Your task to perform on an android device: uninstall "Firefox Browser" Image 0: 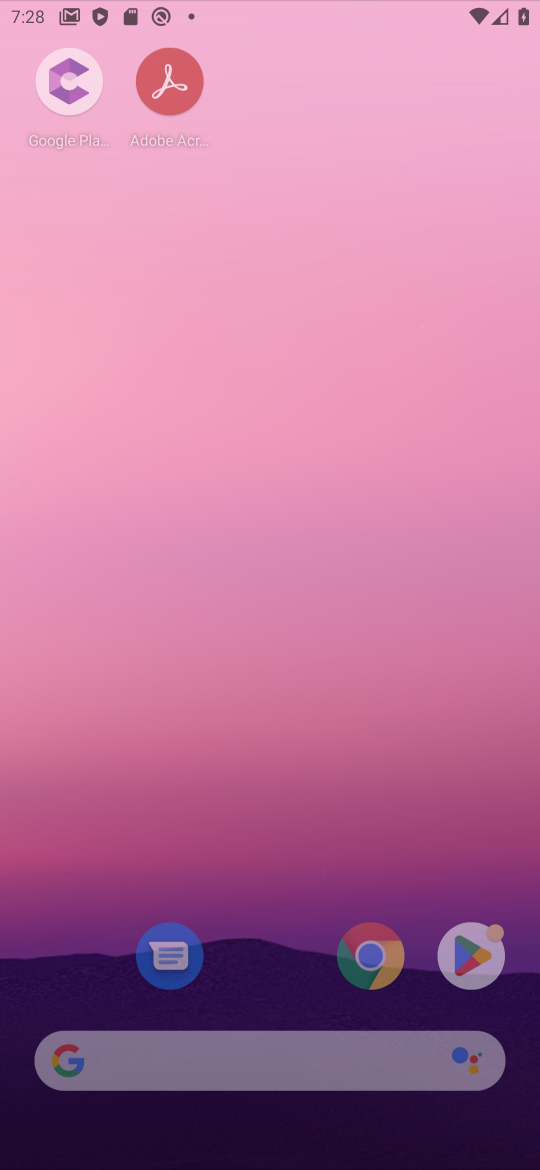
Step 0: press home button
Your task to perform on an android device: uninstall "Firefox Browser" Image 1: 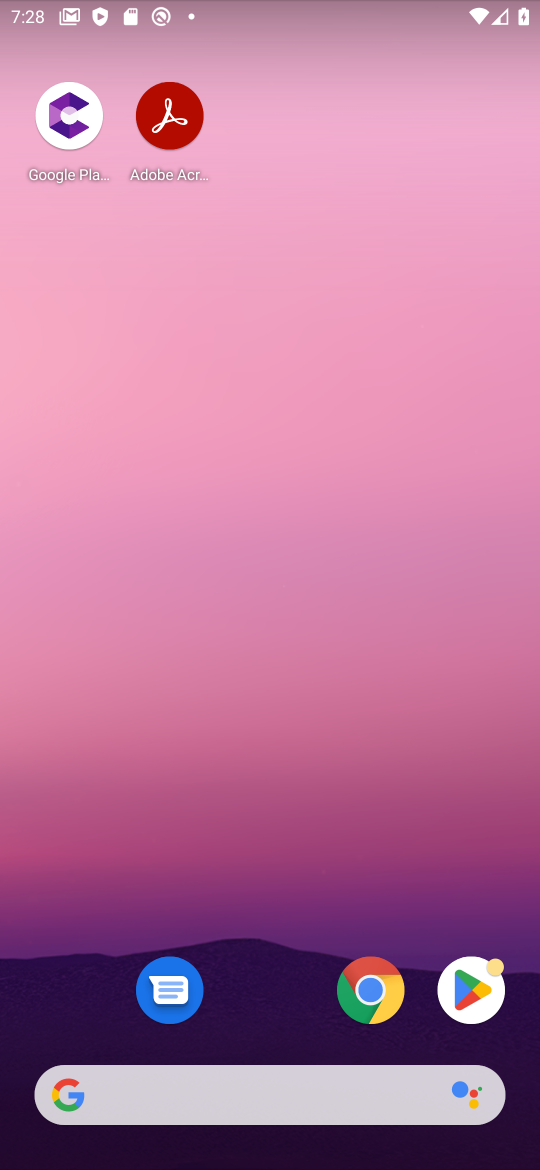
Step 1: press home button
Your task to perform on an android device: uninstall "Firefox Browser" Image 2: 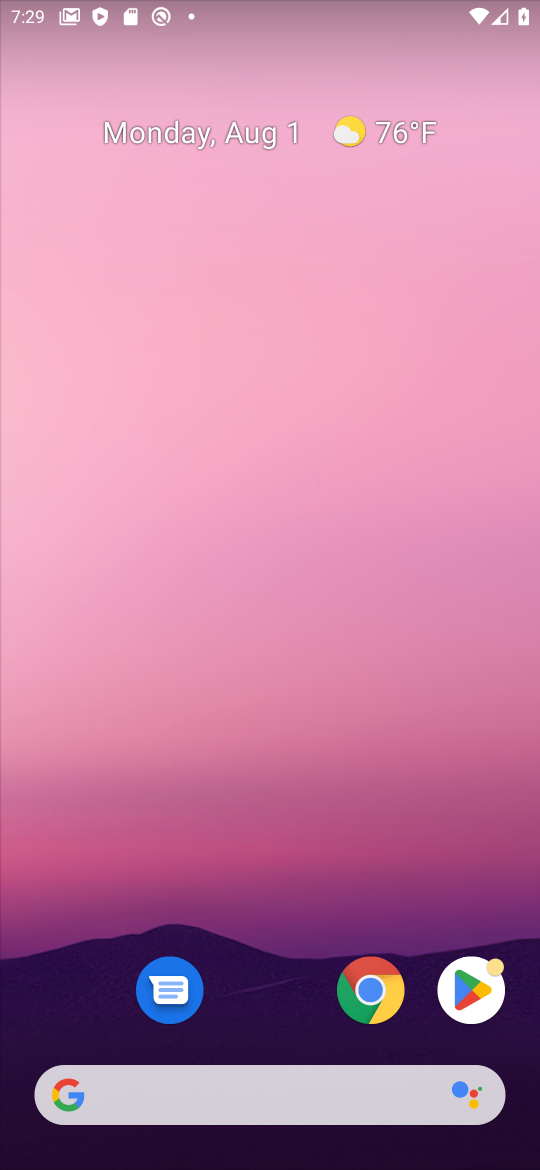
Step 2: click (461, 997)
Your task to perform on an android device: uninstall "Firefox Browser" Image 3: 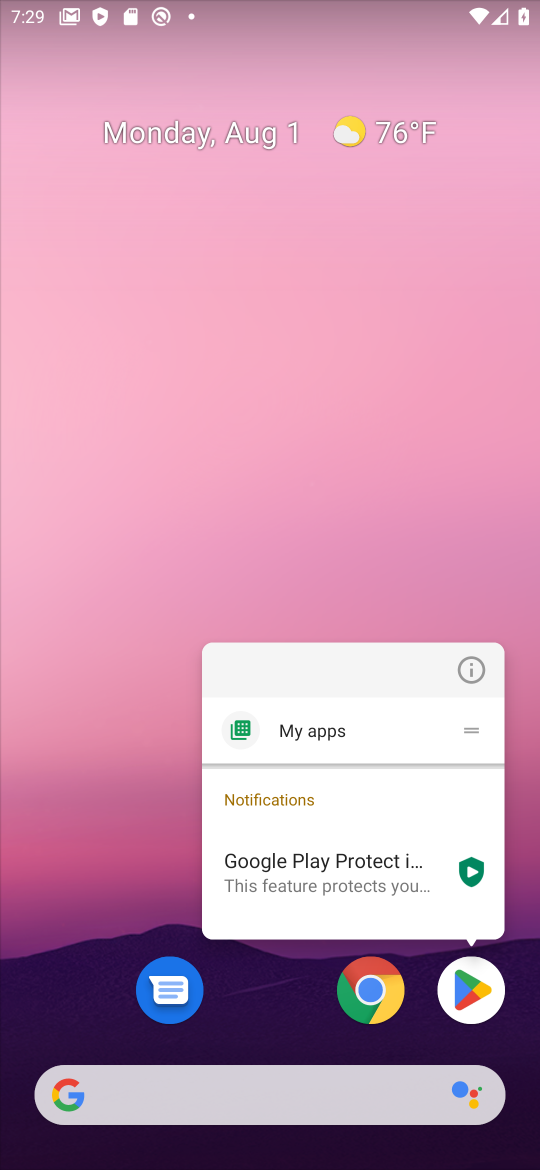
Step 3: click (461, 997)
Your task to perform on an android device: uninstall "Firefox Browser" Image 4: 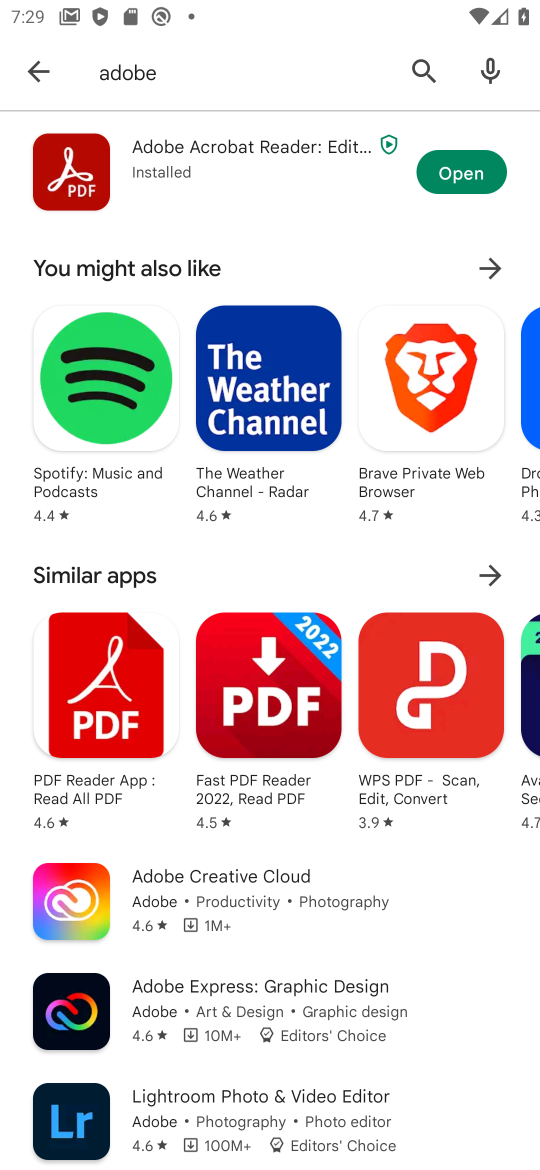
Step 4: click (418, 68)
Your task to perform on an android device: uninstall "Firefox Browser" Image 5: 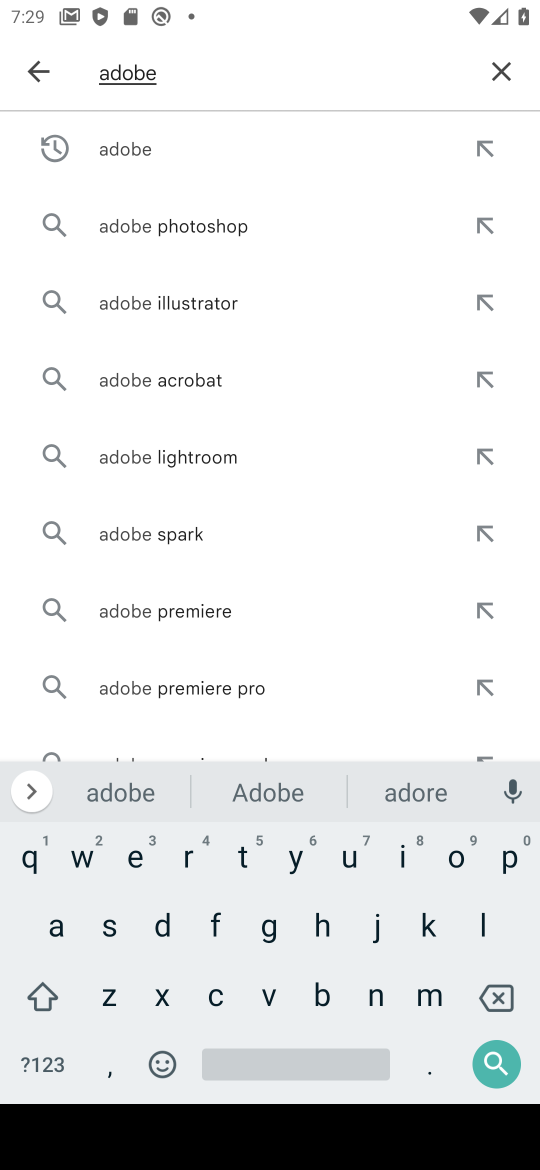
Step 5: click (500, 66)
Your task to perform on an android device: uninstall "Firefox Browser" Image 6: 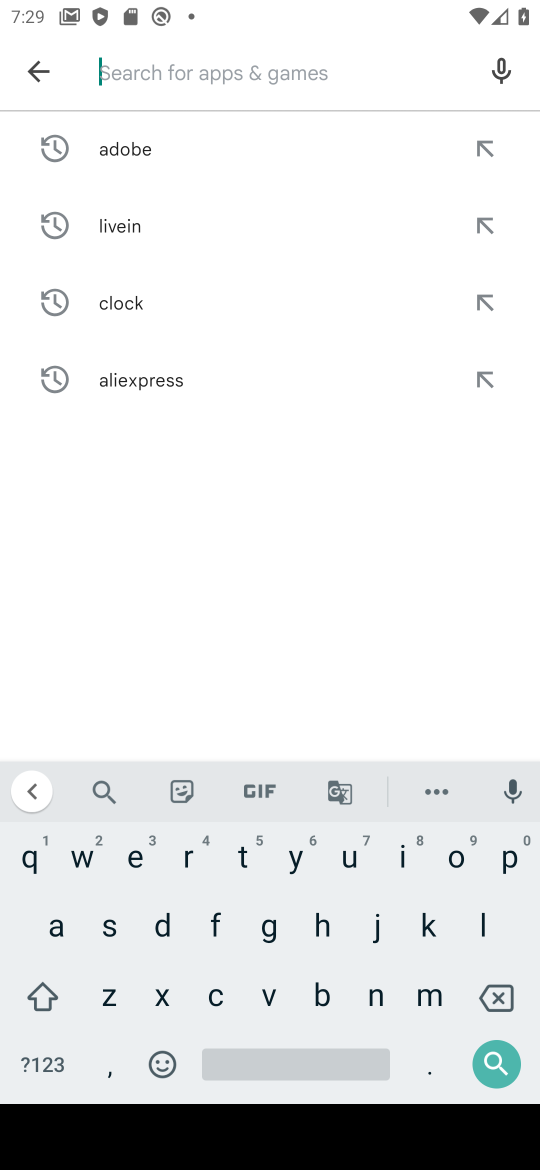
Step 6: click (210, 935)
Your task to perform on an android device: uninstall "Firefox Browser" Image 7: 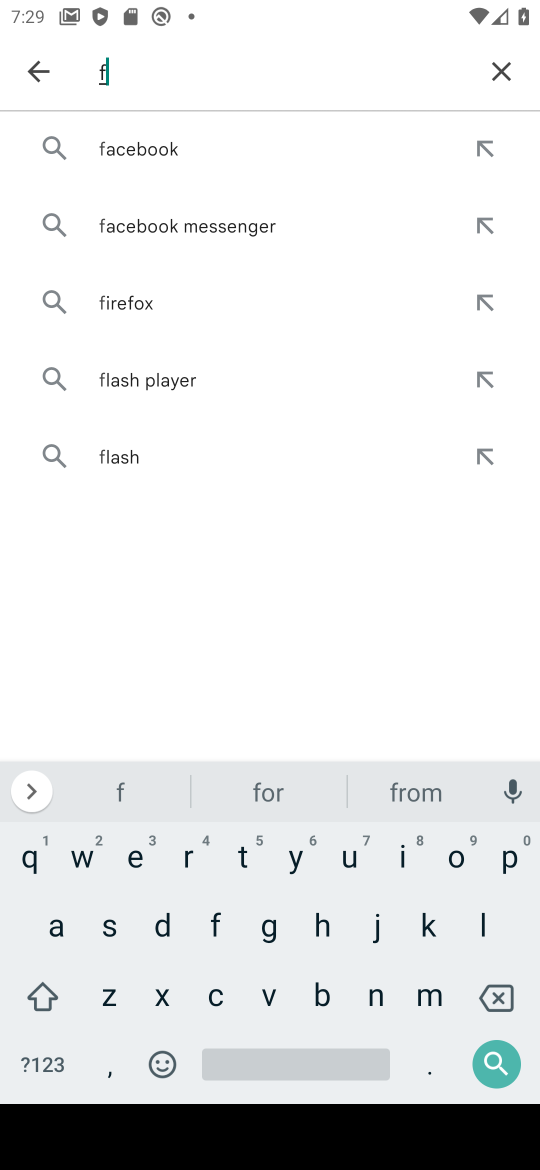
Step 7: click (395, 858)
Your task to perform on an android device: uninstall "Firefox Browser" Image 8: 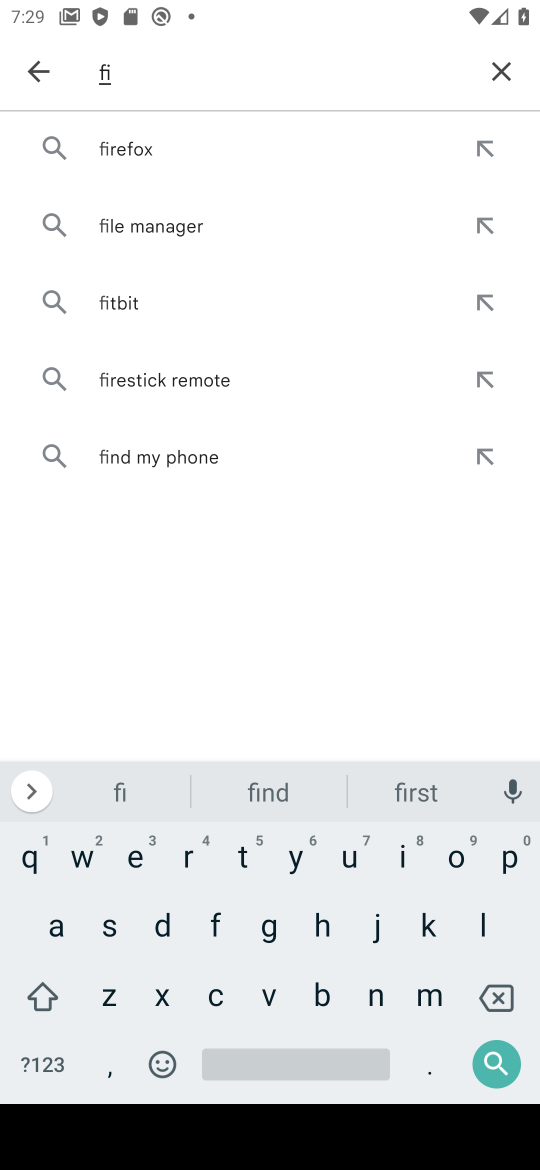
Step 8: click (129, 148)
Your task to perform on an android device: uninstall "Firefox Browser" Image 9: 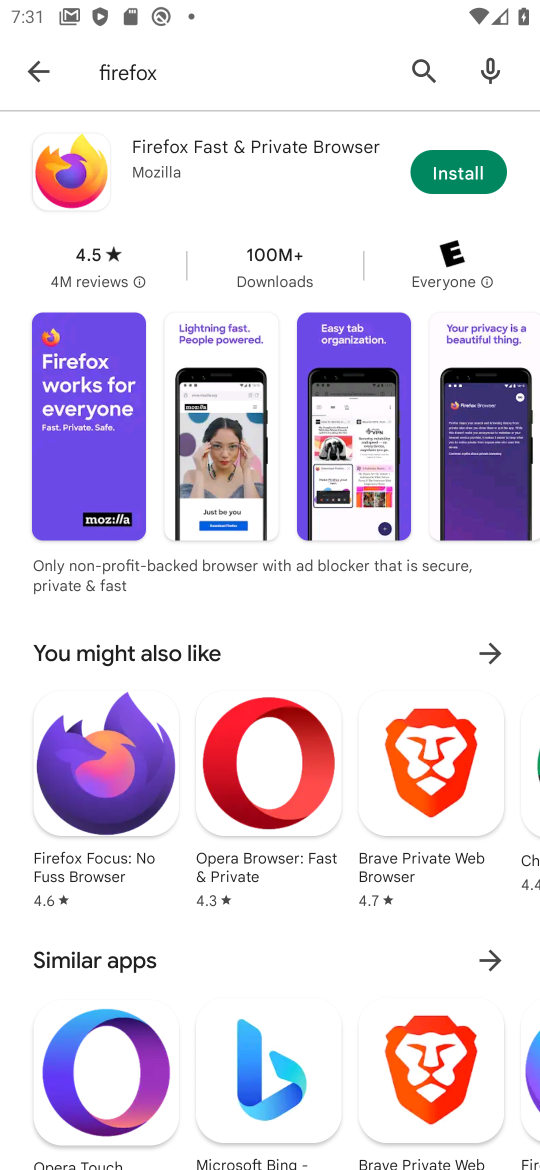
Step 9: task complete